Your task to perform on an android device: What's the weather today? Image 0: 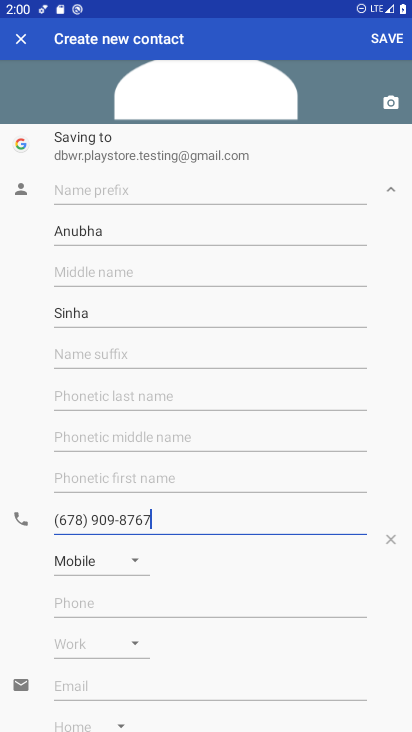
Step 0: press home button
Your task to perform on an android device: What's the weather today? Image 1: 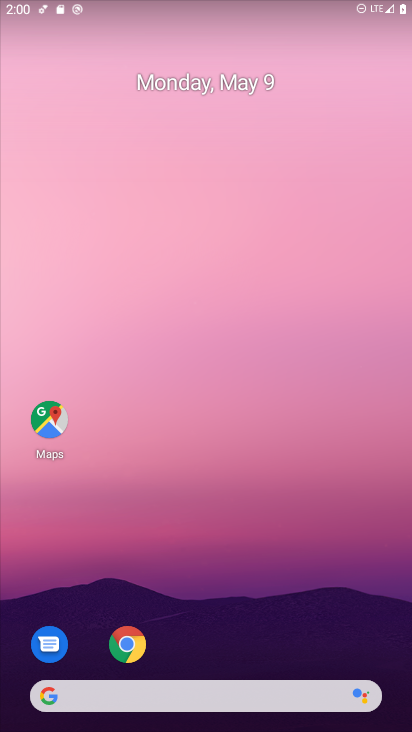
Step 1: drag from (186, 631) to (189, 60)
Your task to perform on an android device: What's the weather today? Image 2: 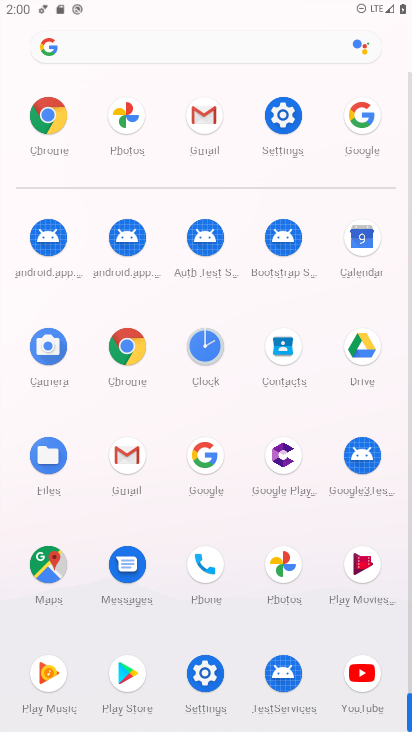
Step 2: click (206, 498)
Your task to perform on an android device: What's the weather today? Image 3: 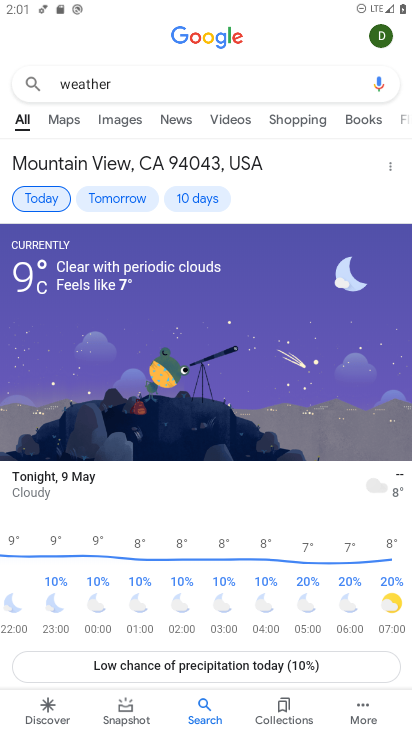
Step 3: task complete